Your task to perform on an android device: Go to notification settings Image 0: 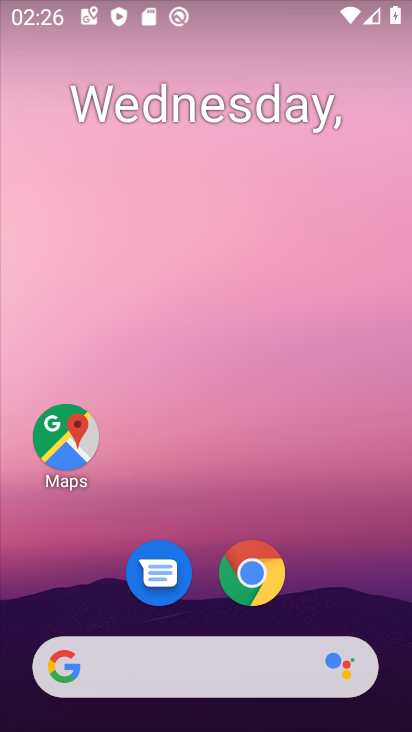
Step 0: drag from (331, 579) to (130, 1)
Your task to perform on an android device: Go to notification settings Image 1: 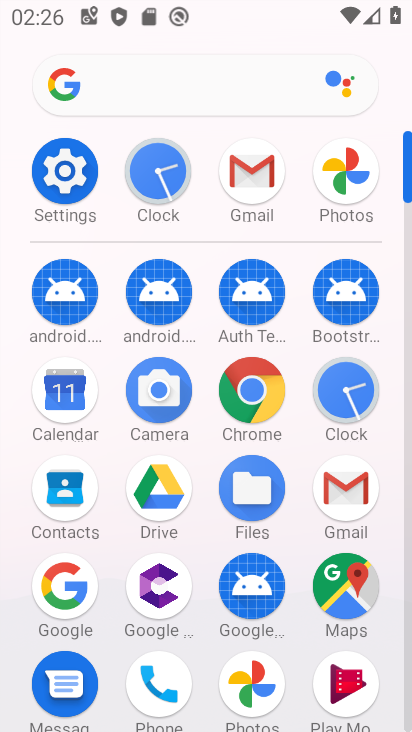
Step 1: click (67, 171)
Your task to perform on an android device: Go to notification settings Image 2: 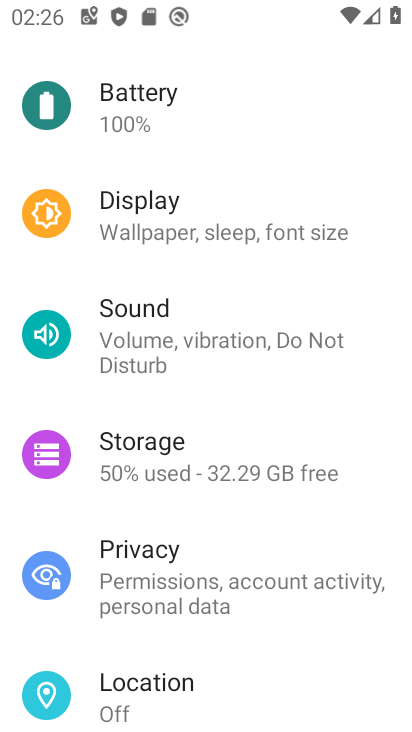
Step 2: drag from (211, 180) to (177, 368)
Your task to perform on an android device: Go to notification settings Image 3: 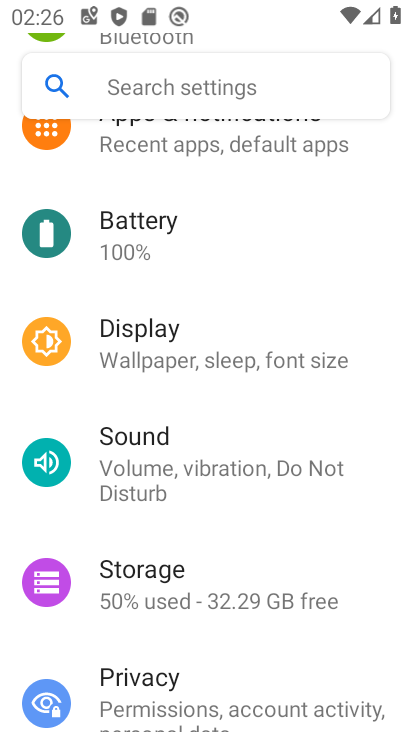
Step 3: drag from (181, 184) to (184, 358)
Your task to perform on an android device: Go to notification settings Image 4: 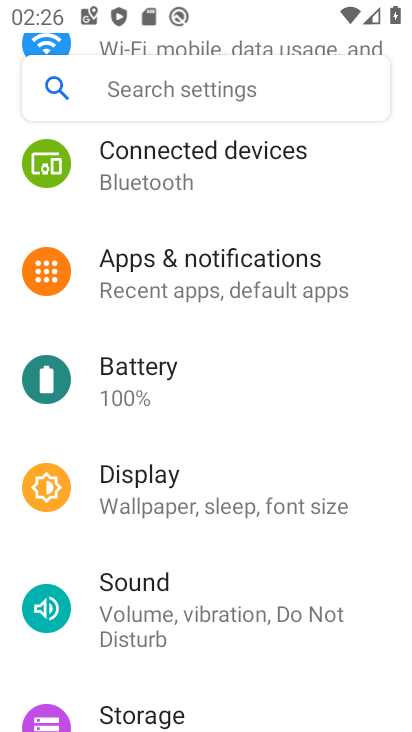
Step 4: click (188, 264)
Your task to perform on an android device: Go to notification settings Image 5: 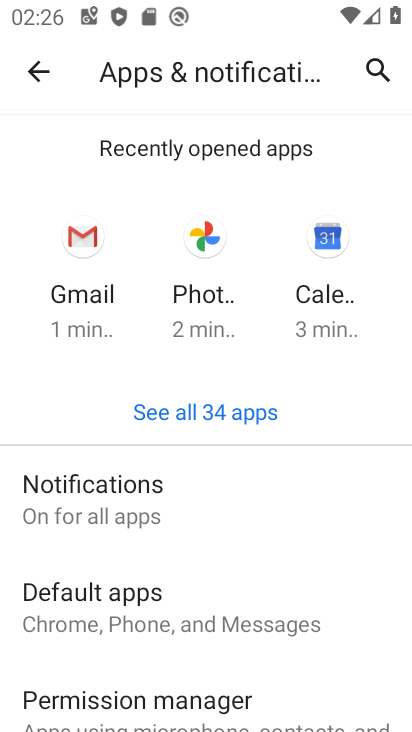
Step 5: click (86, 481)
Your task to perform on an android device: Go to notification settings Image 6: 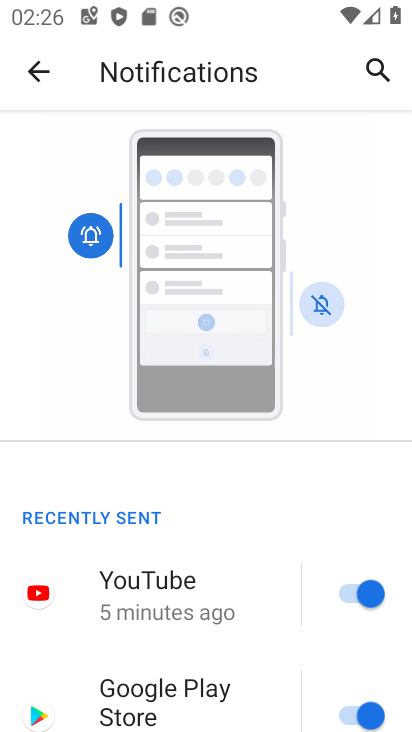
Step 6: task complete